Your task to perform on an android device: find snoozed emails in the gmail app Image 0: 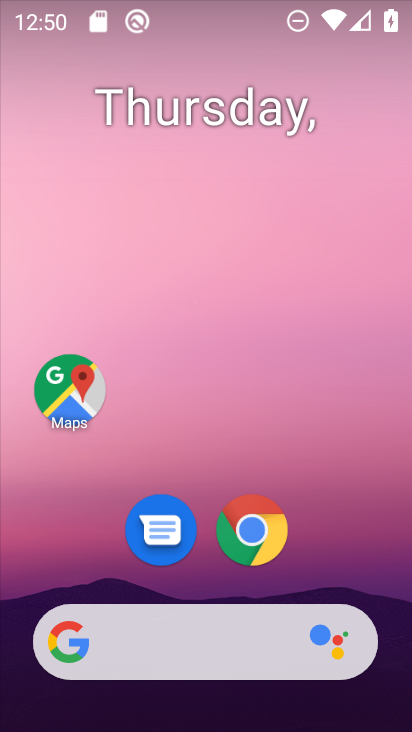
Step 0: drag from (197, 613) to (271, 77)
Your task to perform on an android device: find snoozed emails in the gmail app Image 1: 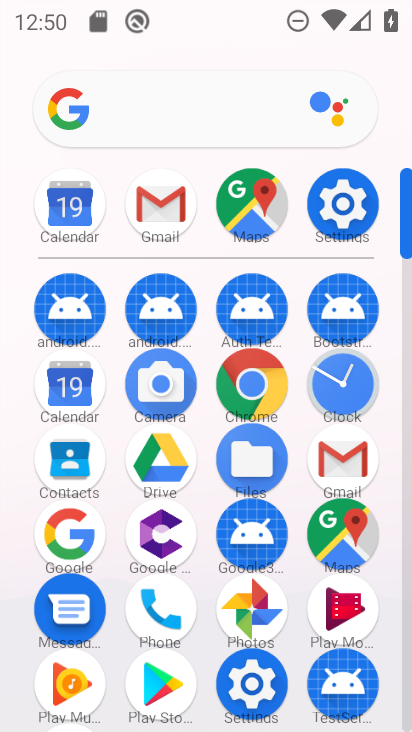
Step 1: click (142, 219)
Your task to perform on an android device: find snoozed emails in the gmail app Image 2: 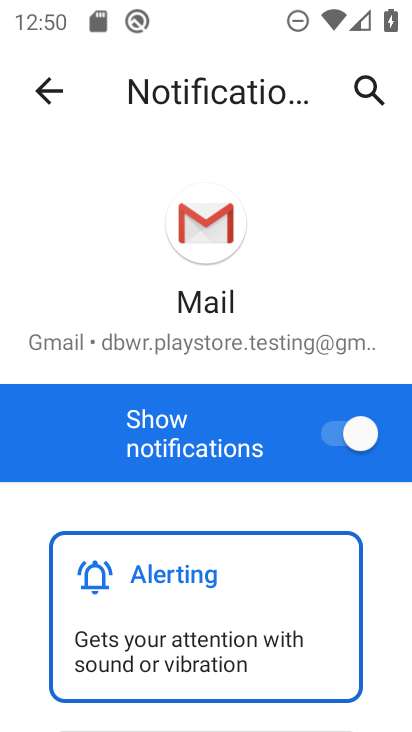
Step 2: click (40, 86)
Your task to perform on an android device: find snoozed emails in the gmail app Image 3: 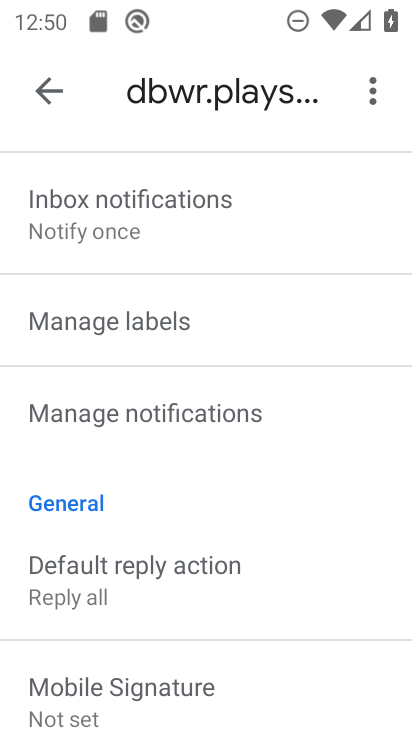
Step 3: click (40, 86)
Your task to perform on an android device: find snoozed emails in the gmail app Image 4: 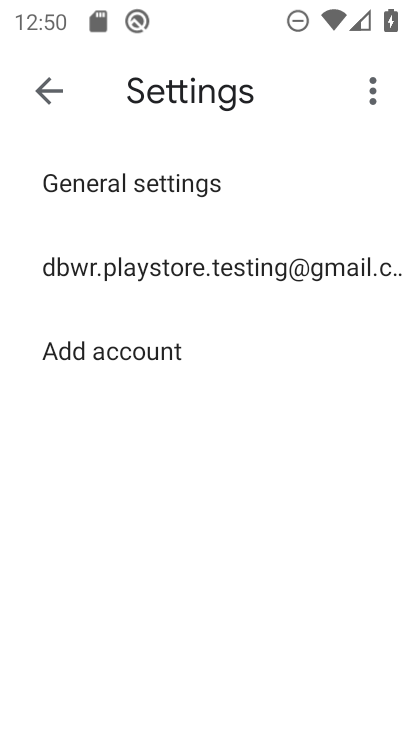
Step 4: click (41, 92)
Your task to perform on an android device: find snoozed emails in the gmail app Image 5: 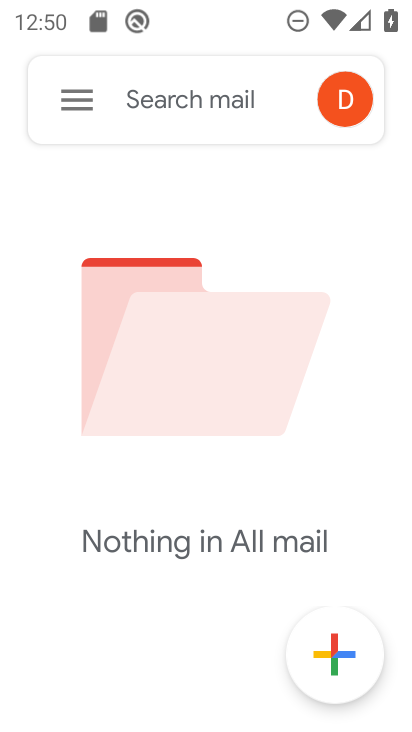
Step 5: drag from (52, 97) to (85, 111)
Your task to perform on an android device: find snoozed emails in the gmail app Image 6: 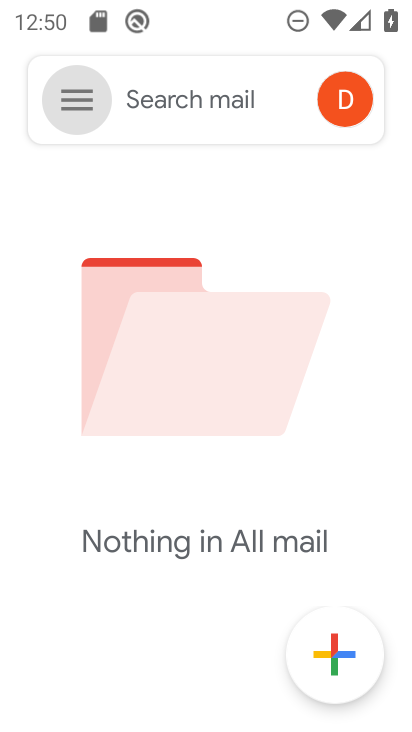
Step 6: click (85, 111)
Your task to perform on an android device: find snoozed emails in the gmail app Image 7: 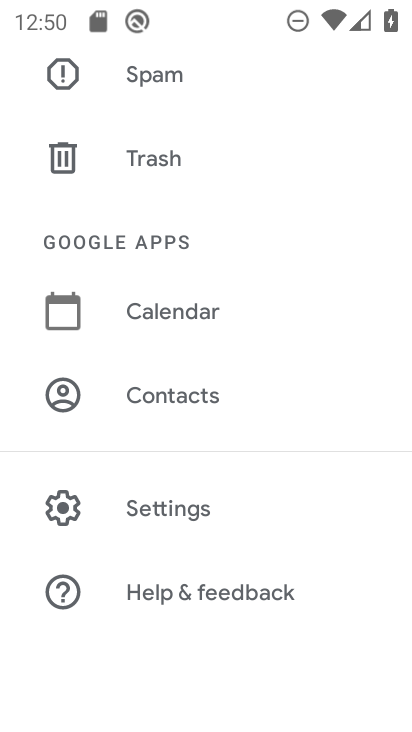
Step 7: drag from (151, 177) to (154, 658)
Your task to perform on an android device: find snoozed emails in the gmail app Image 8: 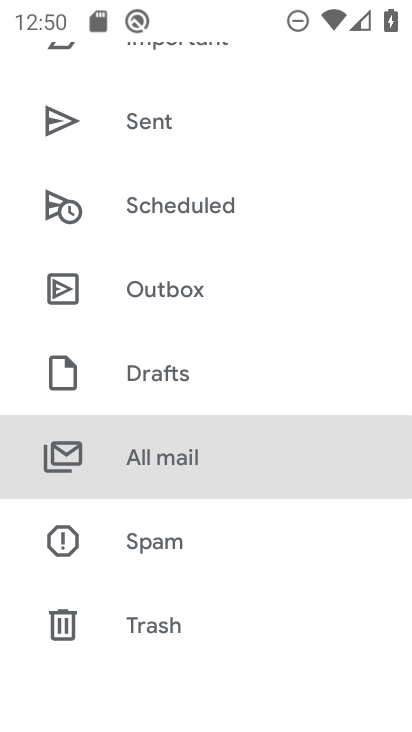
Step 8: drag from (166, 250) to (169, 584)
Your task to perform on an android device: find snoozed emails in the gmail app Image 9: 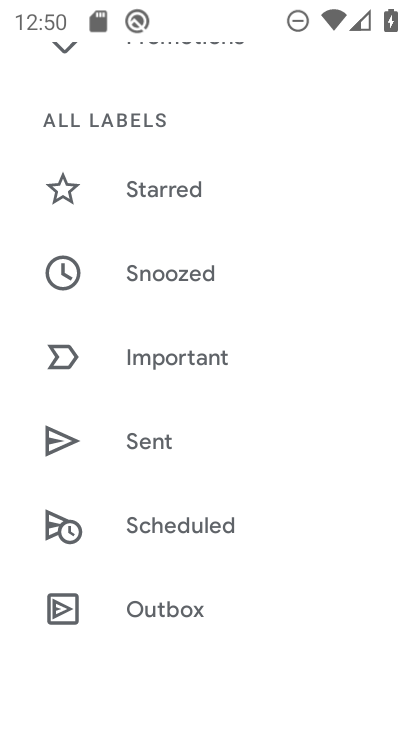
Step 9: click (140, 289)
Your task to perform on an android device: find snoozed emails in the gmail app Image 10: 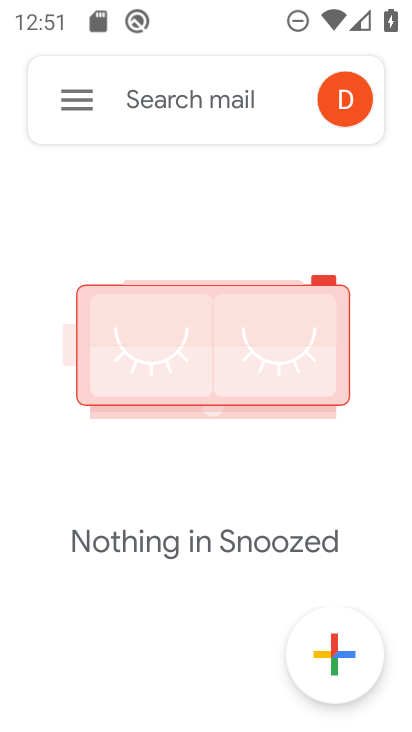
Step 10: task complete